Your task to perform on an android device: delete browsing data in the chrome app Image 0: 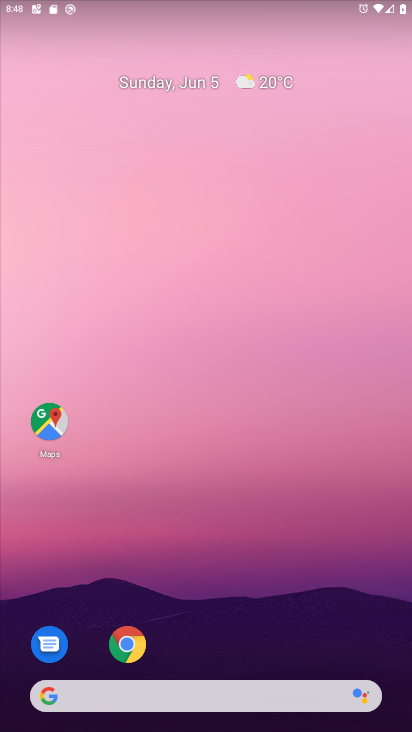
Step 0: drag from (269, 610) to (351, 222)
Your task to perform on an android device: delete browsing data in the chrome app Image 1: 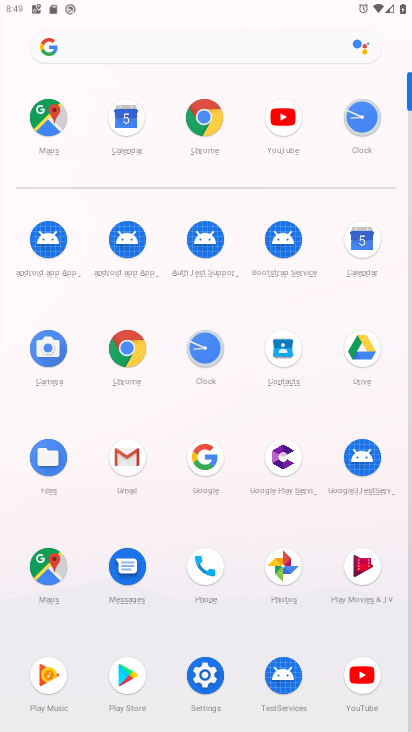
Step 1: click (118, 353)
Your task to perform on an android device: delete browsing data in the chrome app Image 2: 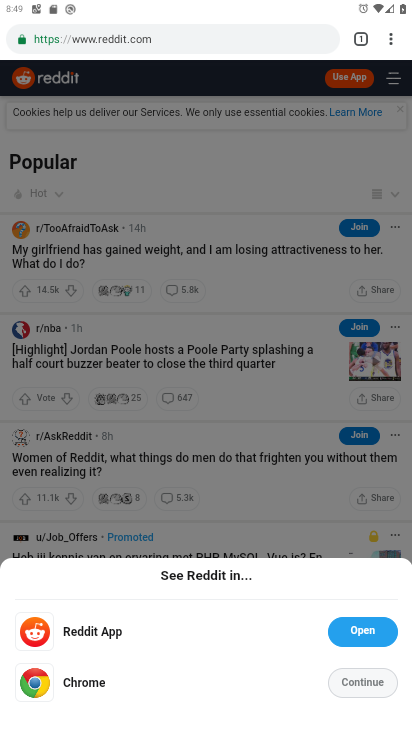
Step 2: drag from (395, 39) to (268, 224)
Your task to perform on an android device: delete browsing data in the chrome app Image 3: 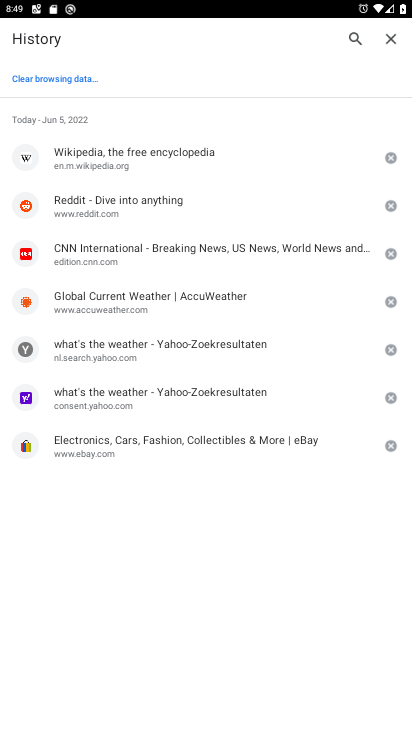
Step 3: click (77, 77)
Your task to perform on an android device: delete browsing data in the chrome app Image 4: 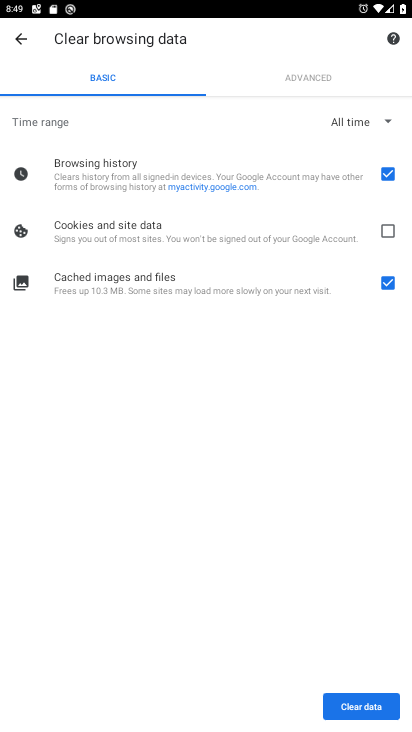
Step 4: click (377, 704)
Your task to perform on an android device: delete browsing data in the chrome app Image 5: 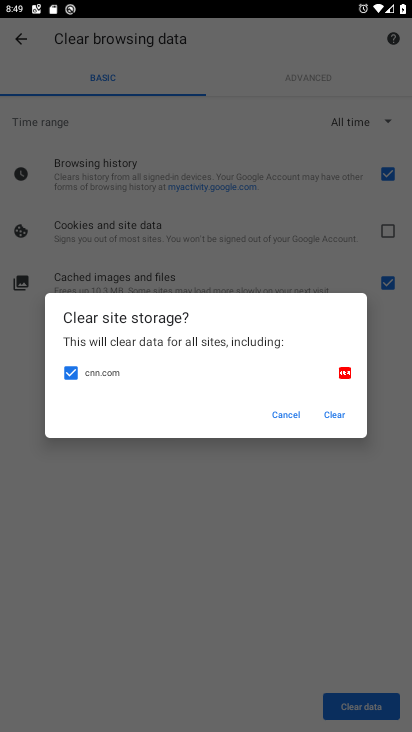
Step 5: click (335, 421)
Your task to perform on an android device: delete browsing data in the chrome app Image 6: 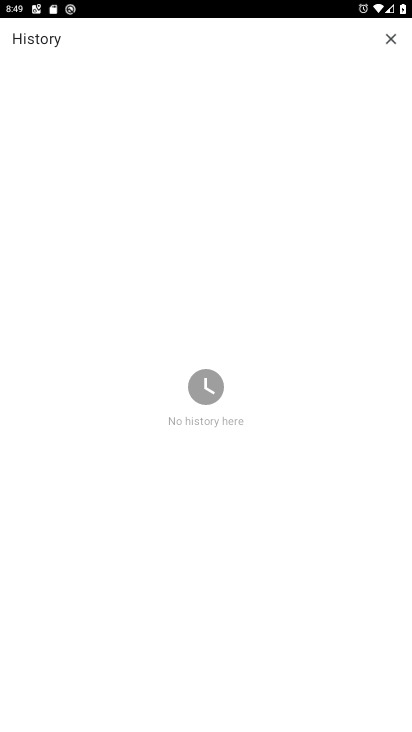
Step 6: task complete